Your task to perform on an android device: Open network settings Image 0: 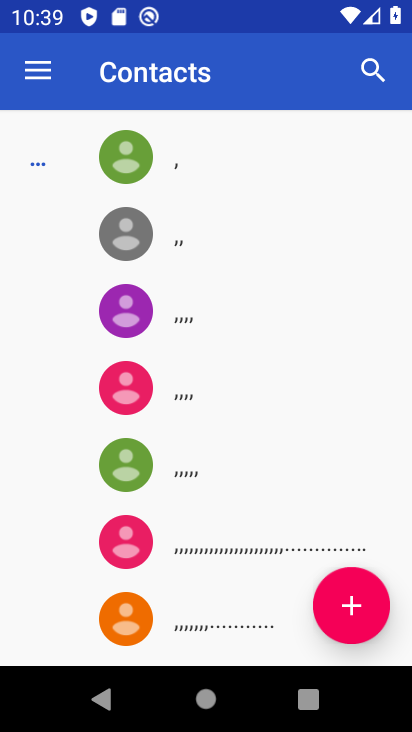
Step 0: press home button
Your task to perform on an android device: Open network settings Image 1: 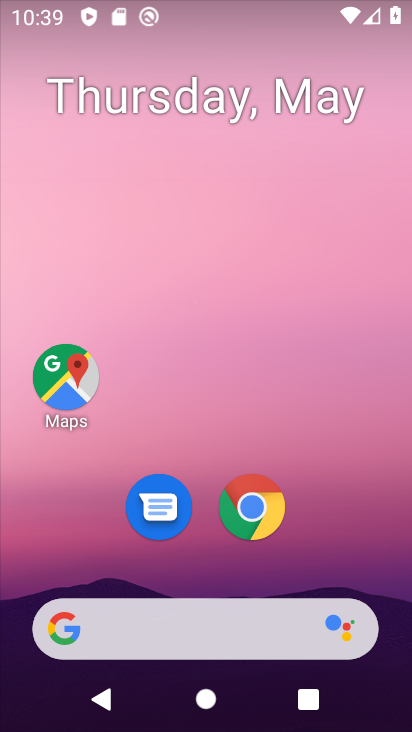
Step 1: drag from (228, 599) to (257, 184)
Your task to perform on an android device: Open network settings Image 2: 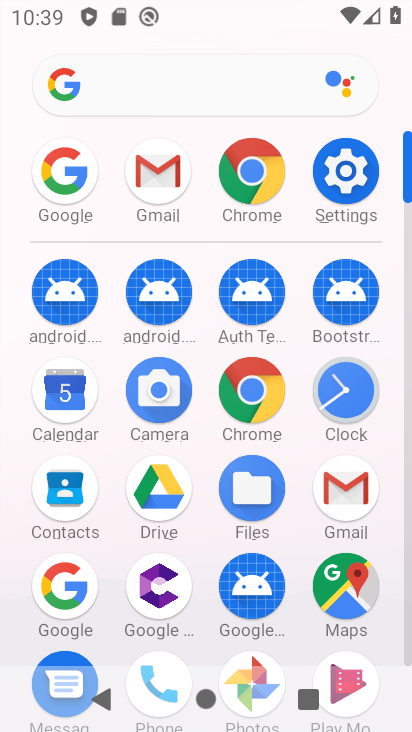
Step 2: click (357, 198)
Your task to perform on an android device: Open network settings Image 3: 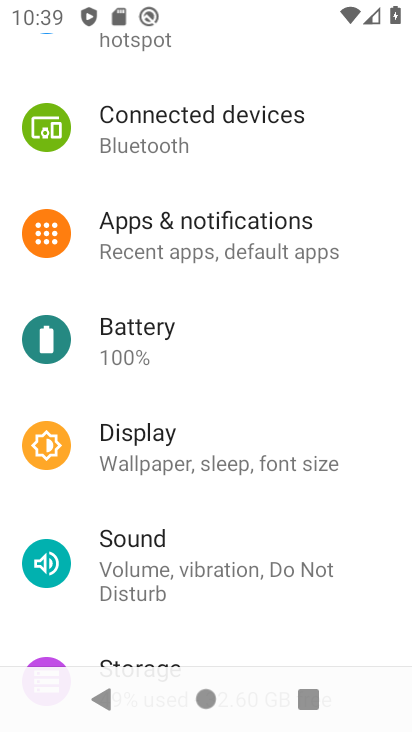
Step 3: drag from (265, 282) to (191, 543)
Your task to perform on an android device: Open network settings Image 4: 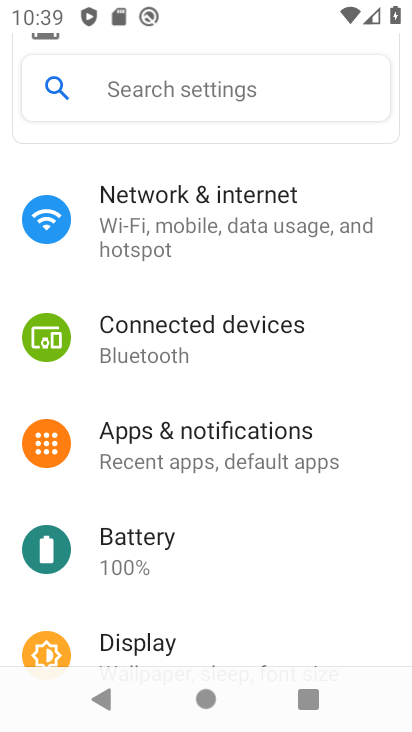
Step 4: drag from (206, 369) to (187, 553)
Your task to perform on an android device: Open network settings Image 5: 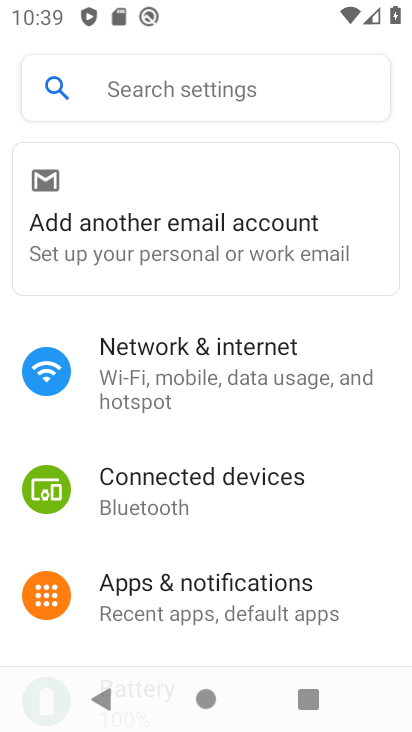
Step 5: drag from (186, 487) to (199, 287)
Your task to perform on an android device: Open network settings Image 6: 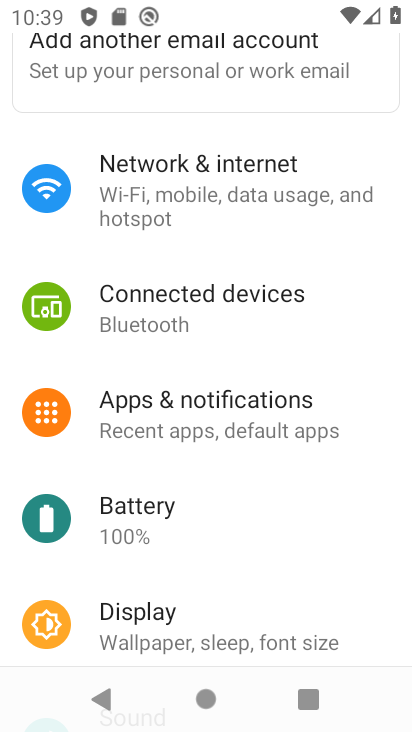
Step 6: click (255, 206)
Your task to perform on an android device: Open network settings Image 7: 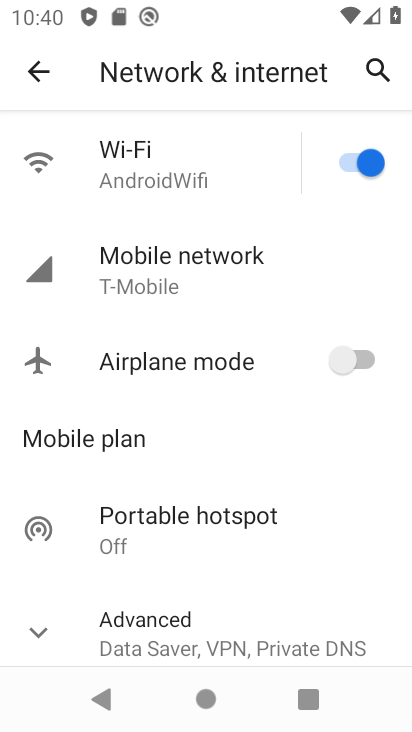
Step 7: task complete